Your task to perform on an android device: What's the weather? Image 0: 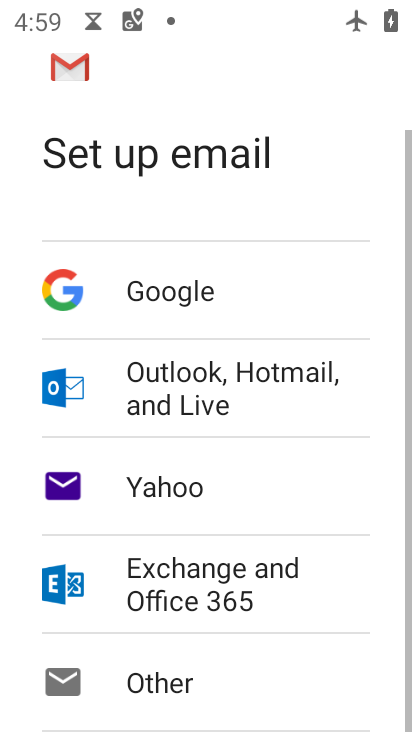
Step 0: press home button
Your task to perform on an android device: What's the weather? Image 1: 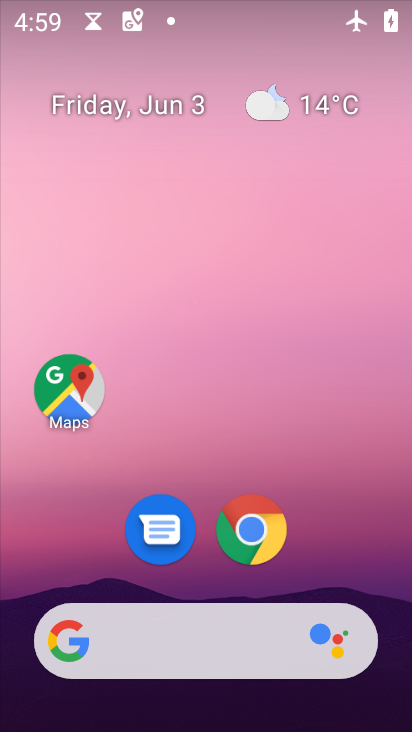
Step 1: click (321, 120)
Your task to perform on an android device: What's the weather? Image 2: 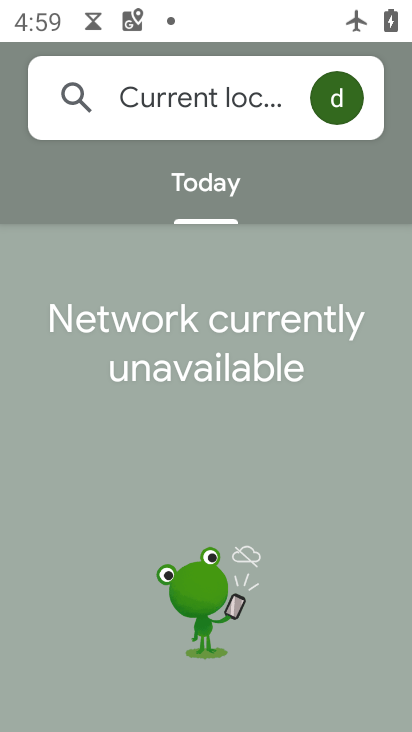
Step 2: task complete